Your task to perform on an android device: toggle priority inbox in the gmail app Image 0: 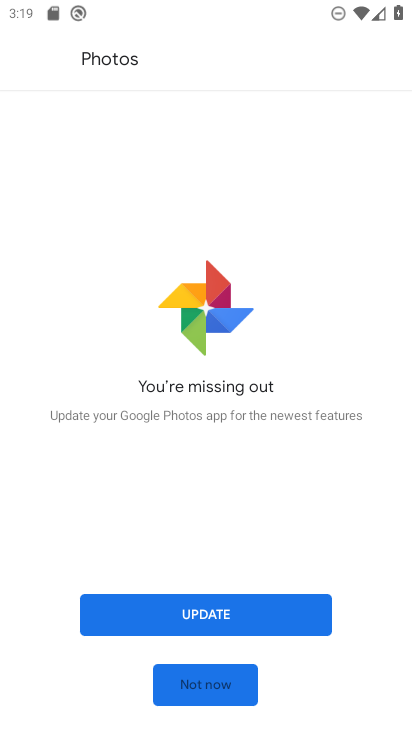
Step 0: press back button
Your task to perform on an android device: toggle priority inbox in the gmail app Image 1: 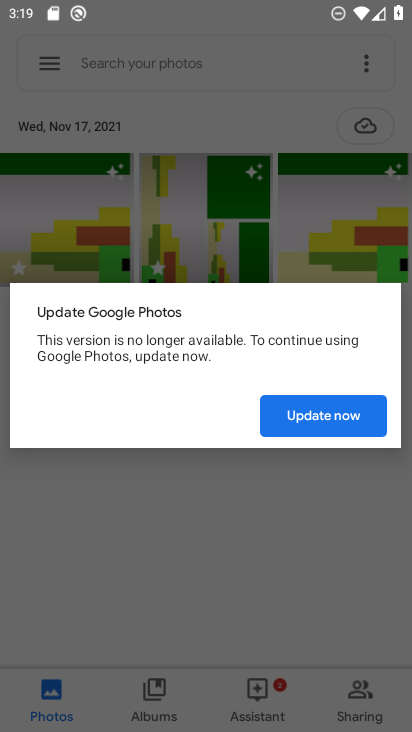
Step 1: press back button
Your task to perform on an android device: toggle priority inbox in the gmail app Image 2: 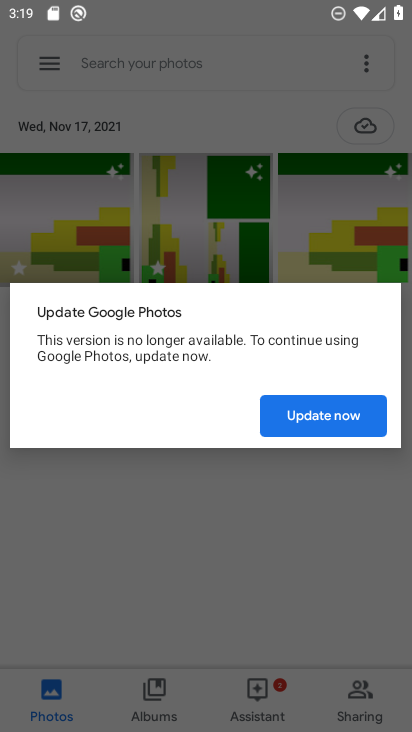
Step 2: press home button
Your task to perform on an android device: toggle priority inbox in the gmail app Image 3: 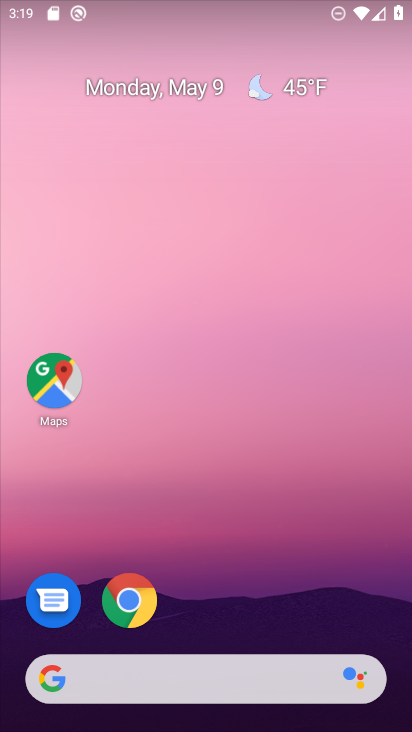
Step 3: drag from (295, 588) to (285, 0)
Your task to perform on an android device: toggle priority inbox in the gmail app Image 4: 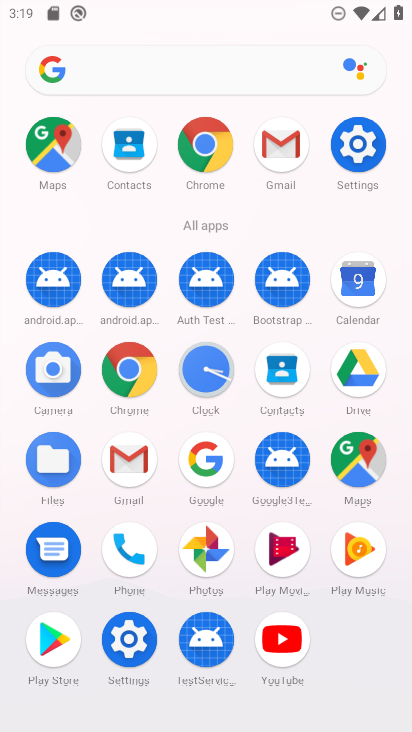
Step 4: click (281, 137)
Your task to perform on an android device: toggle priority inbox in the gmail app Image 5: 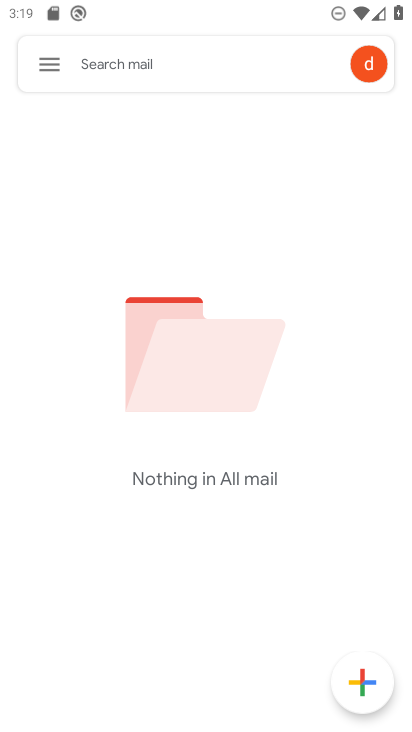
Step 5: click (36, 50)
Your task to perform on an android device: toggle priority inbox in the gmail app Image 6: 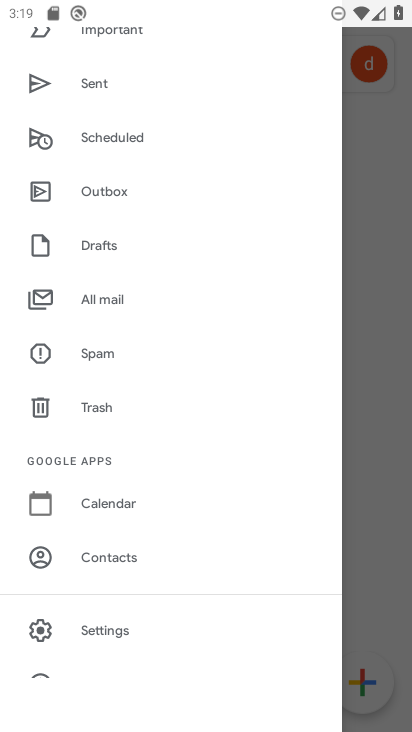
Step 6: click (137, 619)
Your task to perform on an android device: toggle priority inbox in the gmail app Image 7: 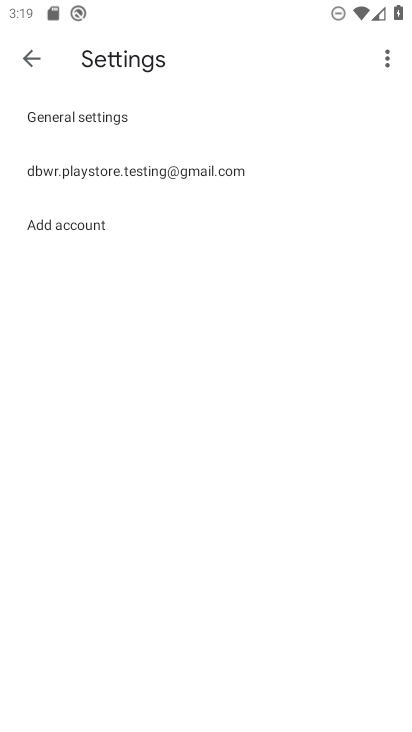
Step 7: click (214, 173)
Your task to perform on an android device: toggle priority inbox in the gmail app Image 8: 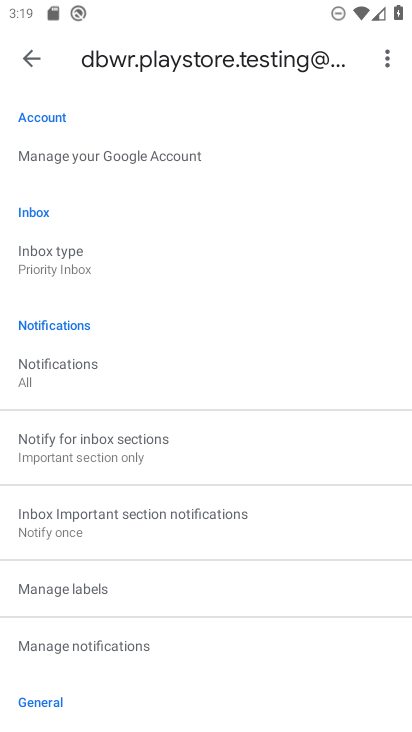
Step 8: drag from (154, 600) to (200, 133)
Your task to perform on an android device: toggle priority inbox in the gmail app Image 9: 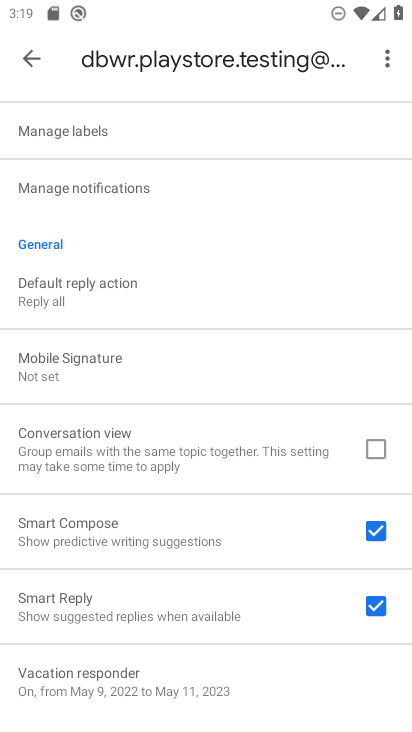
Step 9: drag from (200, 177) to (201, 631)
Your task to perform on an android device: toggle priority inbox in the gmail app Image 10: 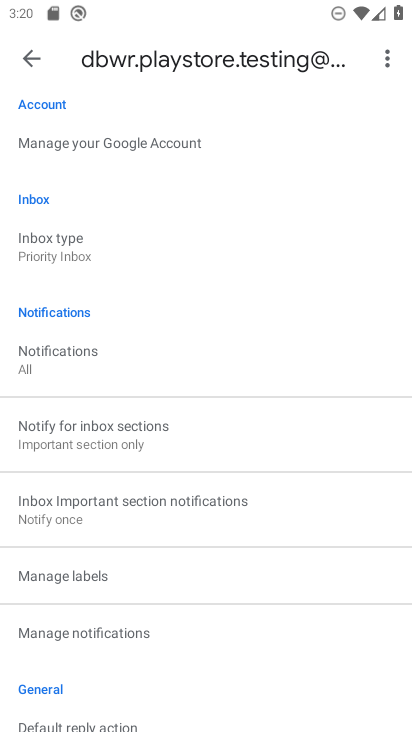
Step 10: click (87, 242)
Your task to perform on an android device: toggle priority inbox in the gmail app Image 11: 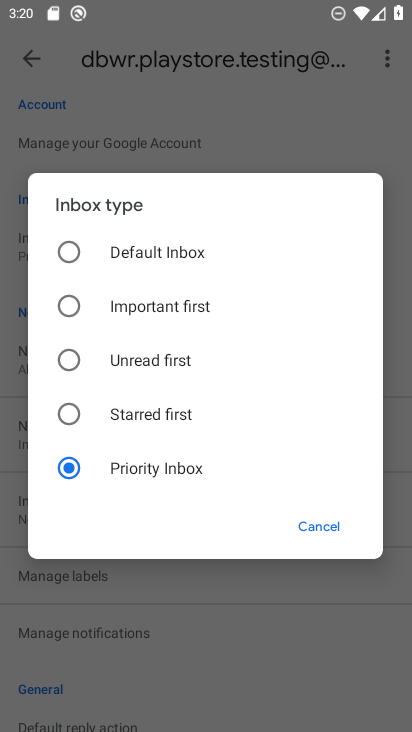
Step 11: click (145, 243)
Your task to perform on an android device: toggle priority inbox in the gmail app Image 12: 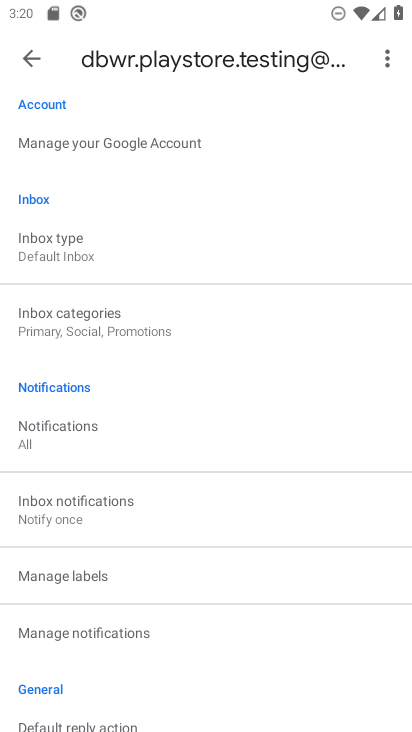
Step 12: task complete